Your task to perform on an android device: Add "amazon basics triple a" to the cart on walmart.com Image 0: 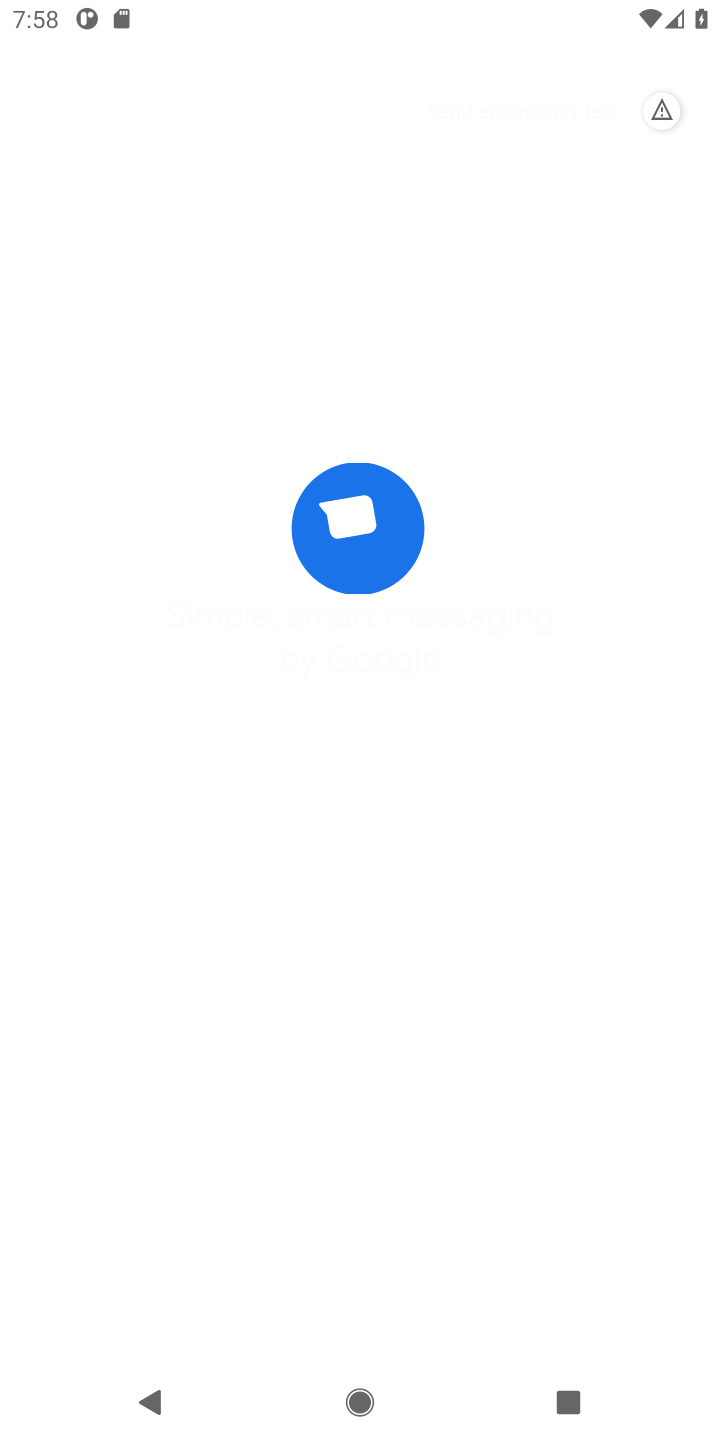
Step 0: press home button
Your task to perform on an android device: Add "amazon basics triple a" to the cart on walmart.com Image 1: 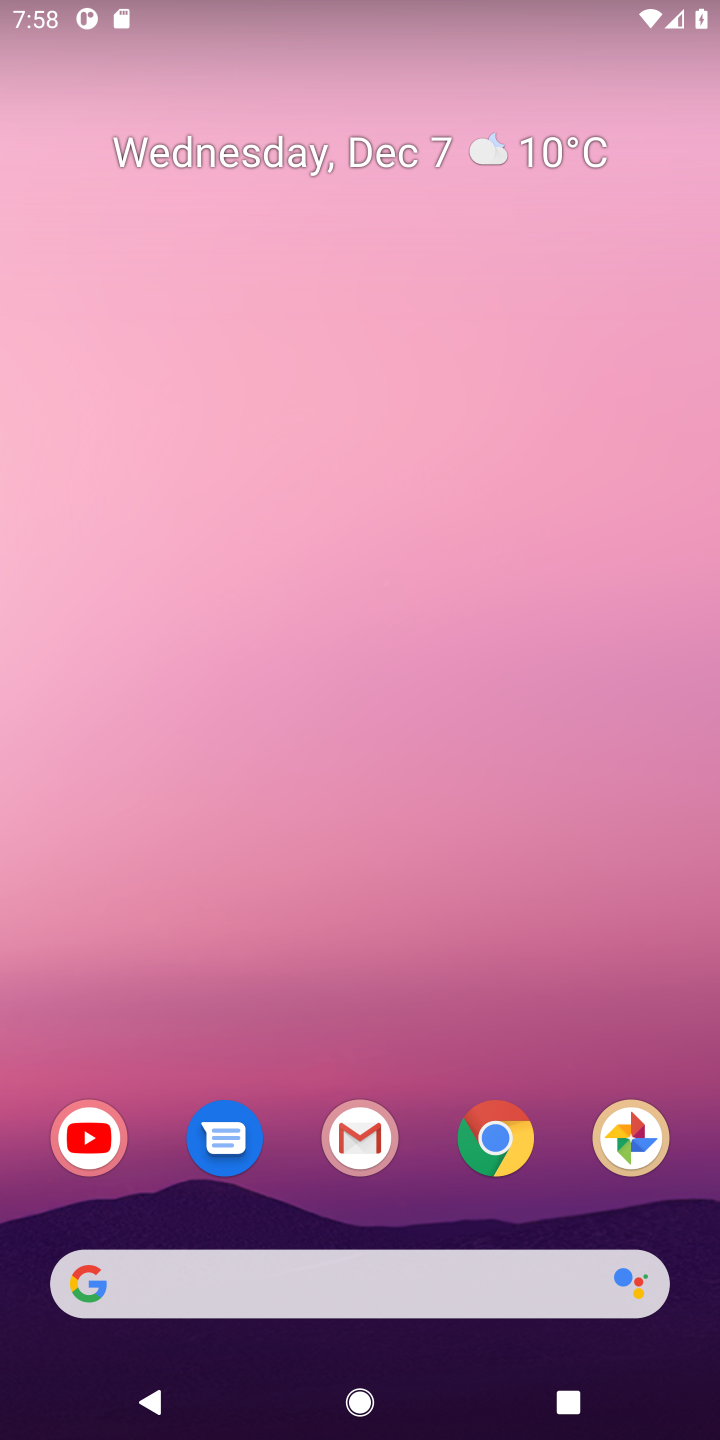
Step 1: click (173, 1278)
Your task to perform on an android device: Add "amazon basics triple a" to the cart on walmart.com Image 2: 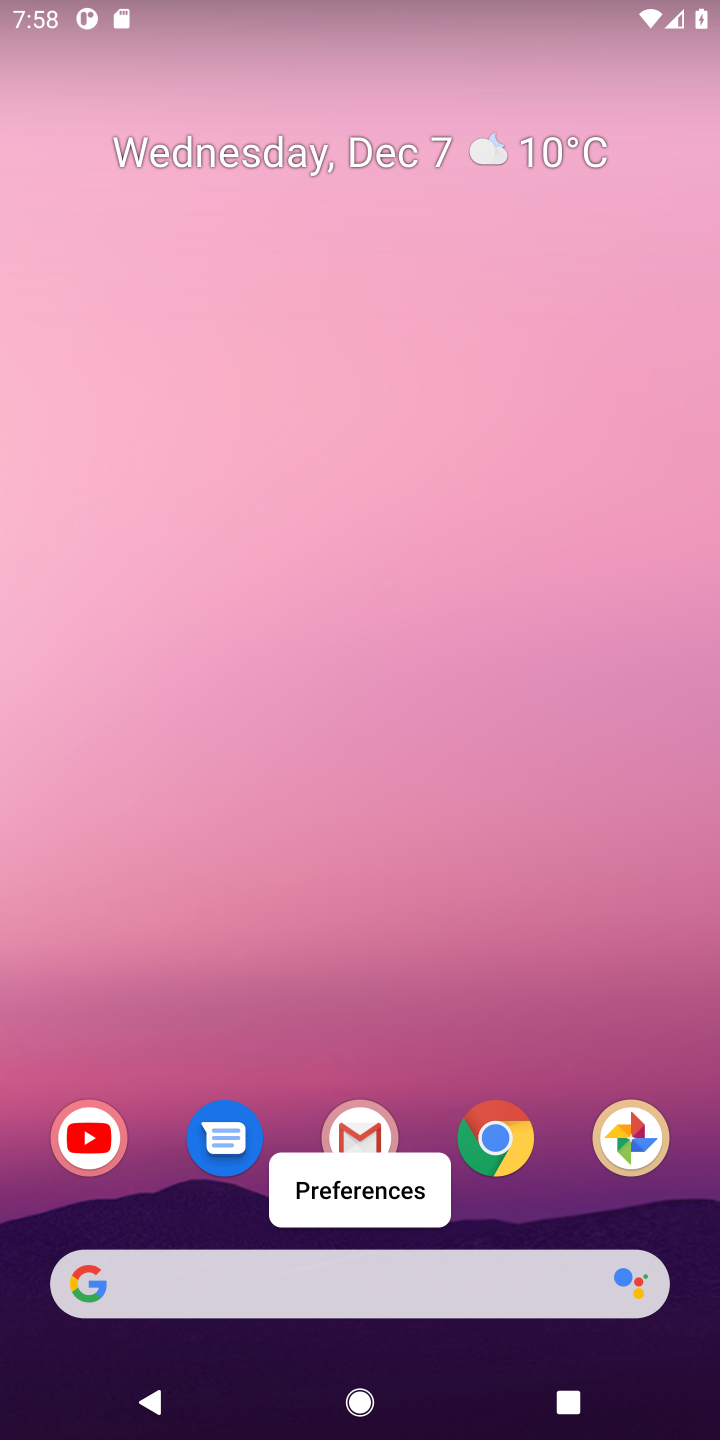
Step 2: click (139, 1282)
Your task to perform on an android device: Add "amazon basics triple a" to the cart on walmart.com Image 3: 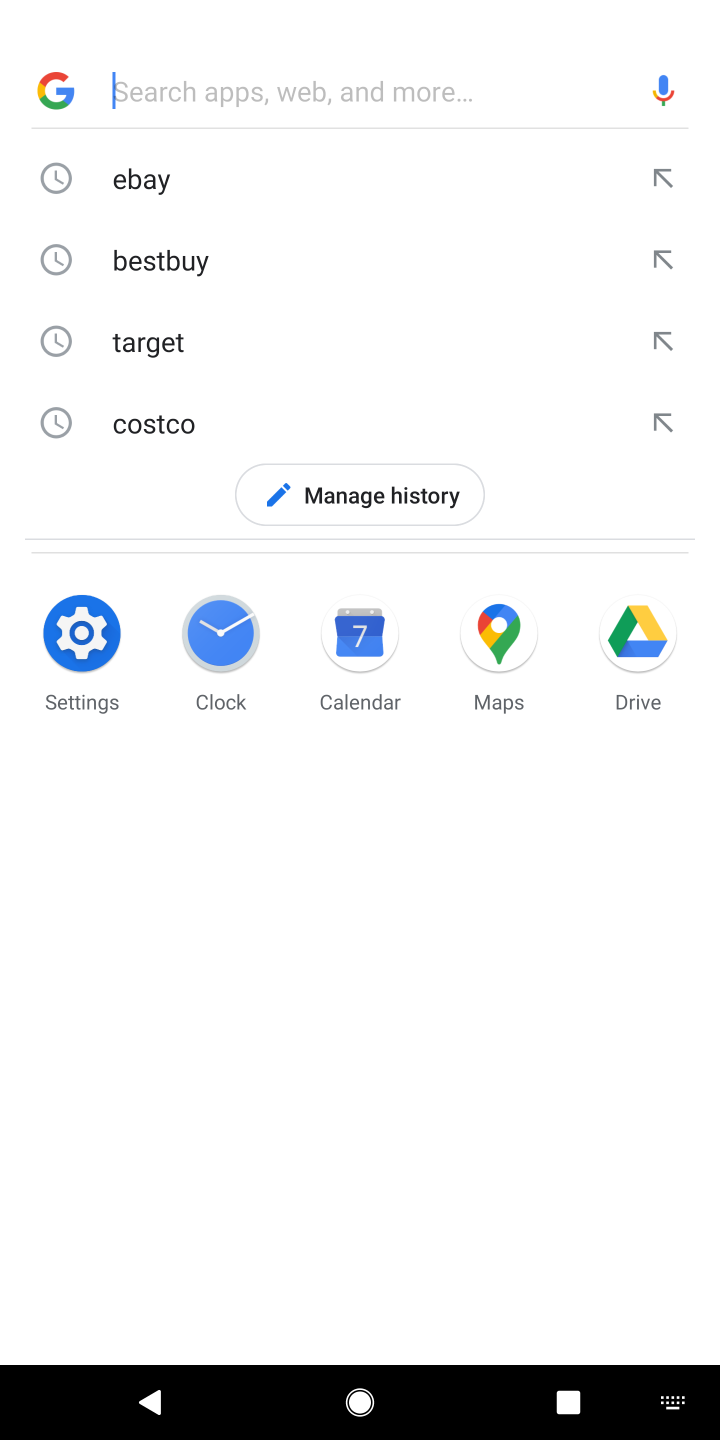
Step 3: type "walmart.com"
Your task to perform on an android device: Add "amazon basics triple a" to the cart on walmart.com Image 4: 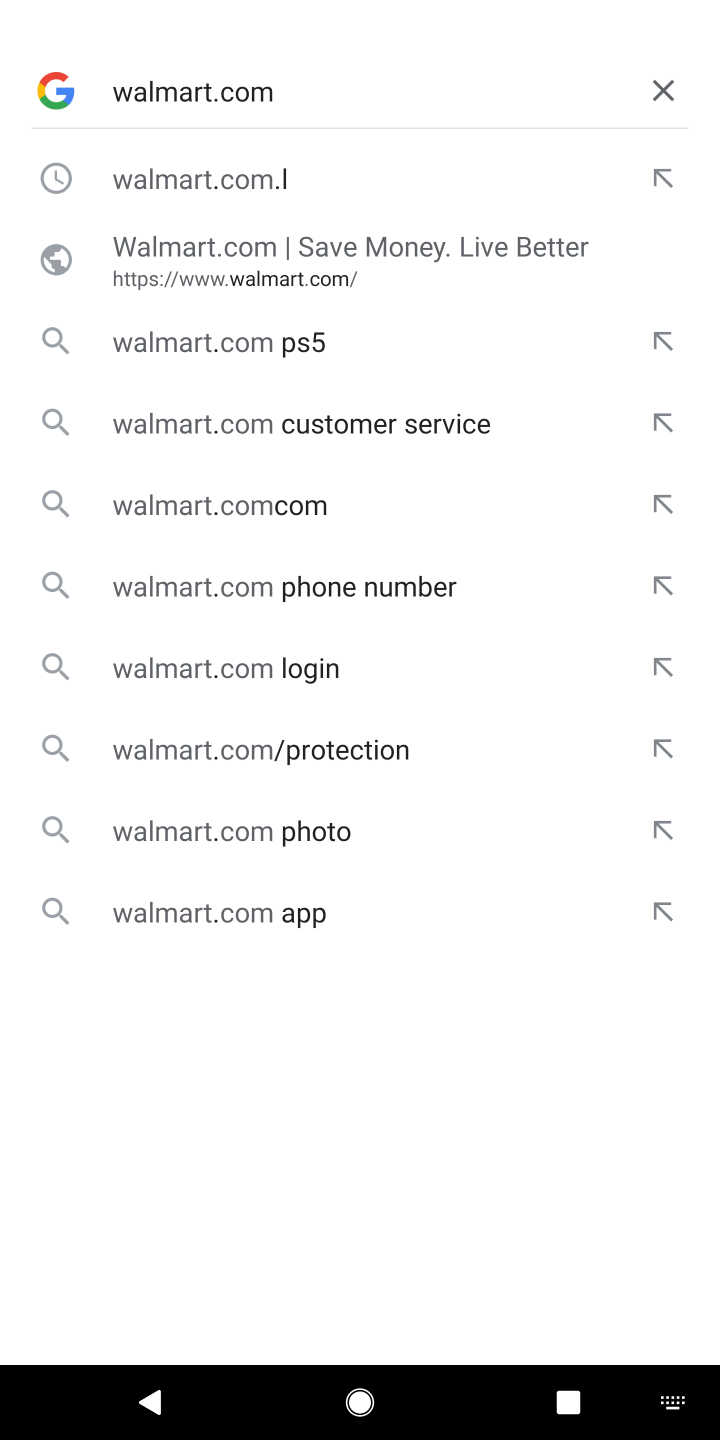
Step 4: press enter
Your task to perform on an android device: Add "amazon basics triple a" to the cart on walmart.com Image 5: 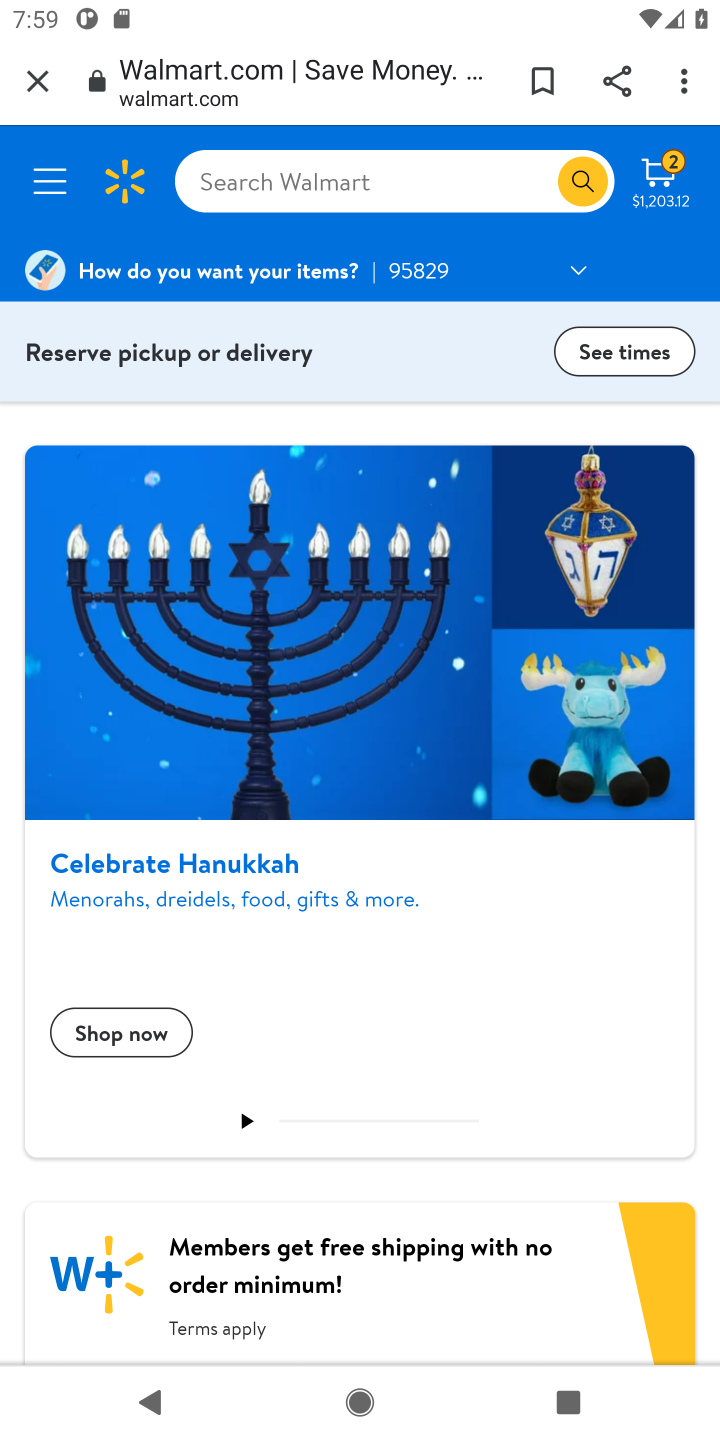
Step 5: click (324, 181)
Your task to perform on an android device: Add "amazon basics triple a" to the cart on walmart.com Image 6: 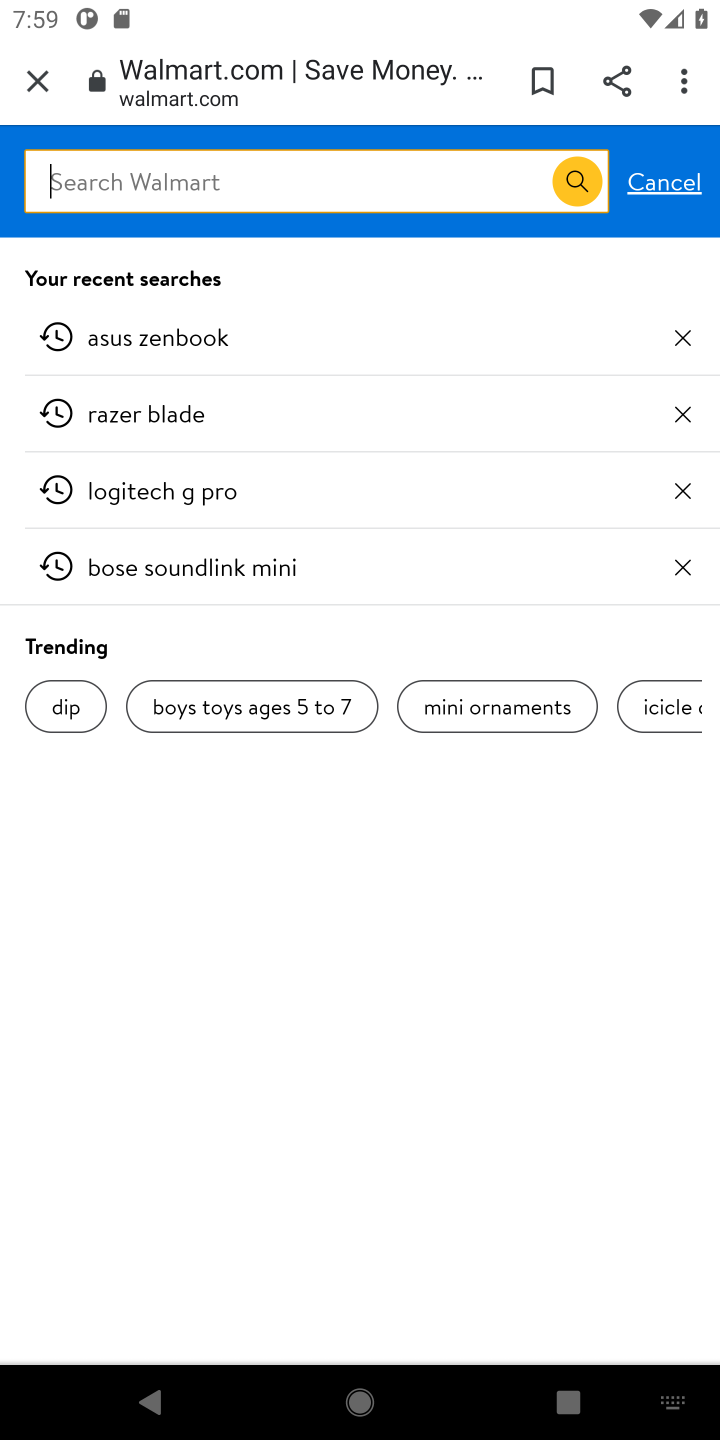
Step 6: type "amazon basics triple a"
Your task to perform on an android device: Add "amazon basics triple a" to the cart on walmart.com Image 7: 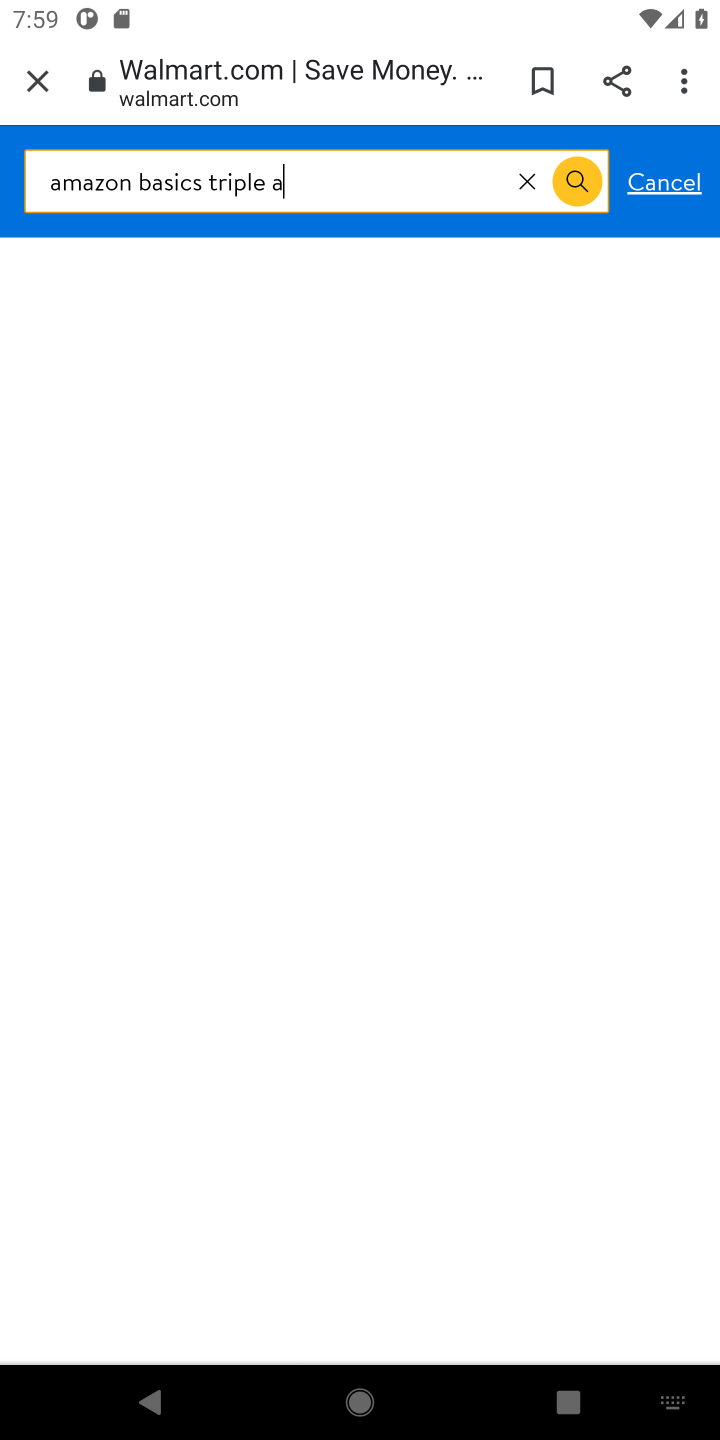
Step 7: press enter
Your task to perform on an android device: Add "amazon basics triple a" to the cart on walmart.com Image 8: 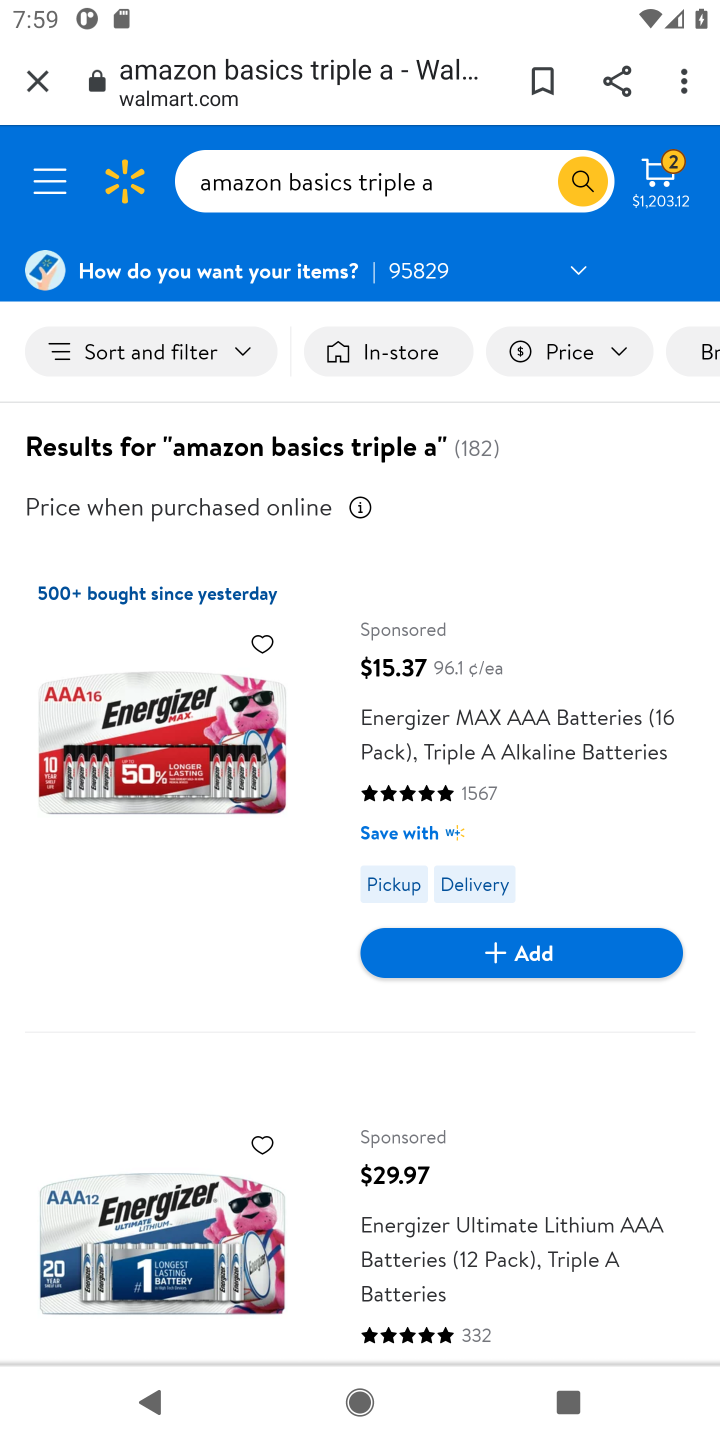
Step 8: task complete